Your task to perform on an android device: turn off airplane mode Image 0: 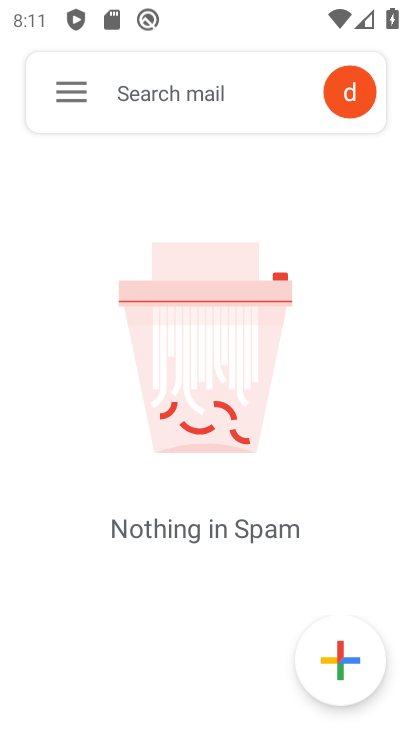
Step 0: press home button
Your task to perform on an android device: turn off airplane mode Image 1: 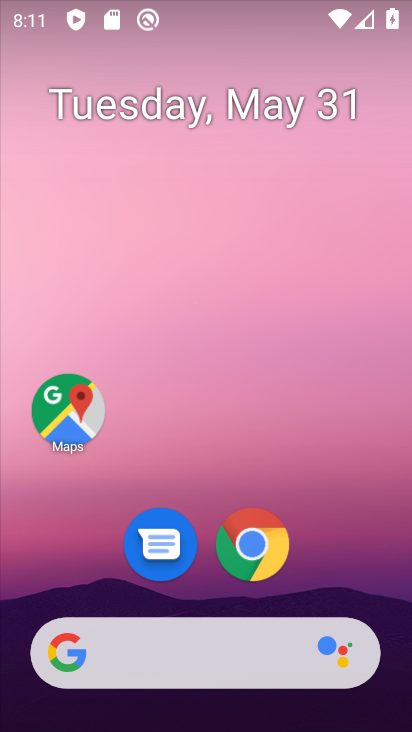
Step 1: drag from (200, 634) to (237, 105)
Your task to perform on an android device: turn off airplane mode Image 2: 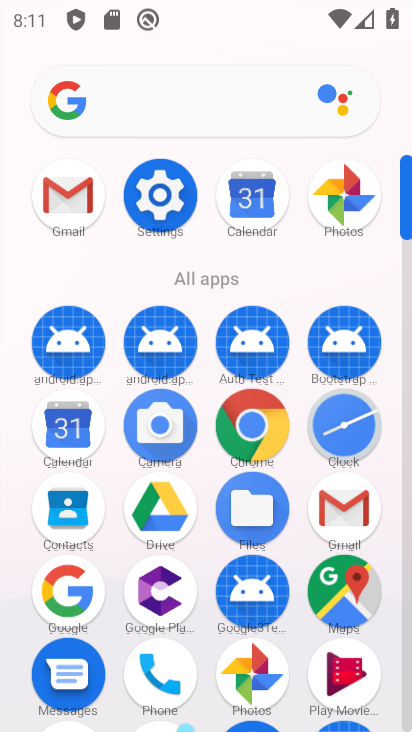
Step 2: click (171, 190)
Your task to perform on an android device: turn off airplane mode Image 3: 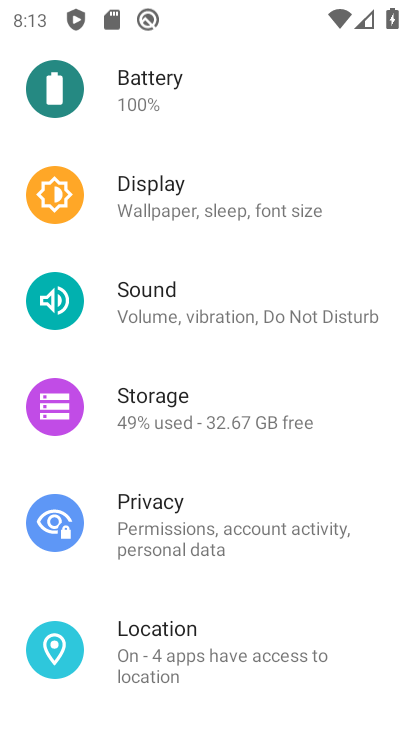
Step 3: drag from (188, 204) to (179, 615)
Your task to perform on an android device: turn off airplane mode Image 4: 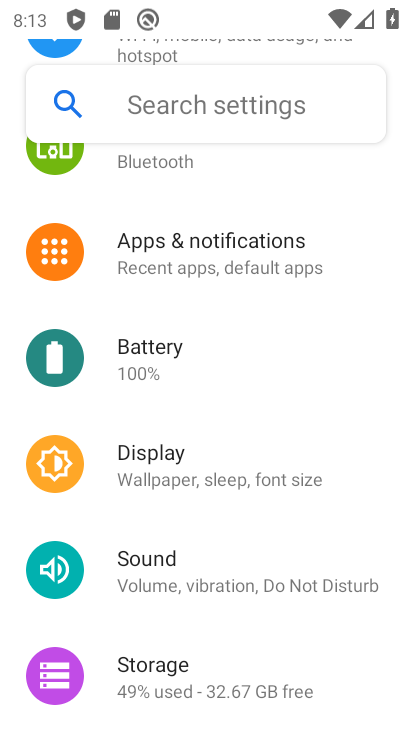
Step 4: drag from (208, 157) to (243, 430)
Your task to perform on an android device: turn off airplane mode Image 5: 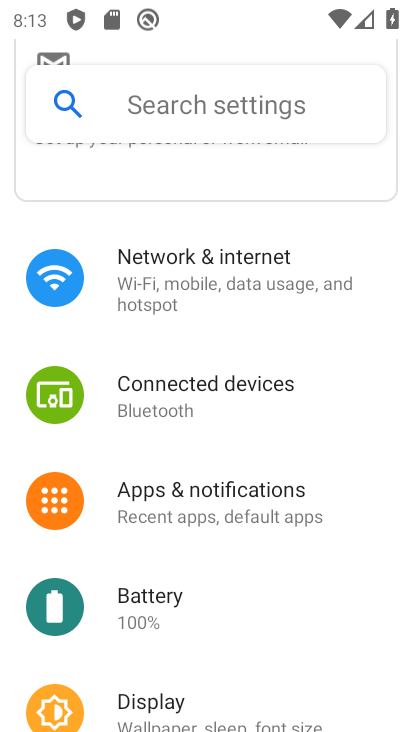
Step 5: click (225, 265)
Your task to perform on an android device: turn off airplane mode Image 6: 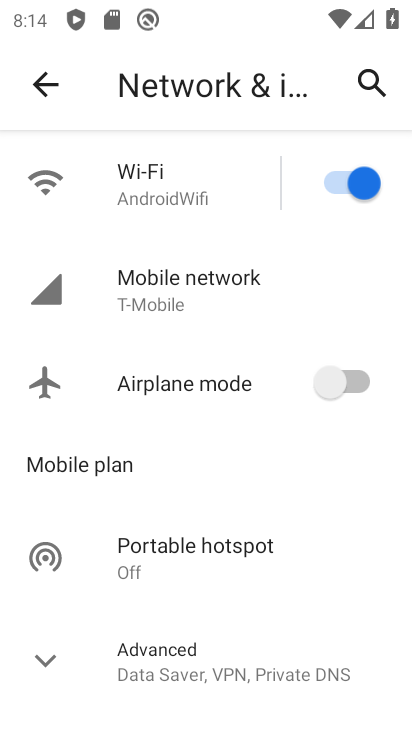
Step 6: task complete